Your task to perform on an android device: Go to Google Image 0: 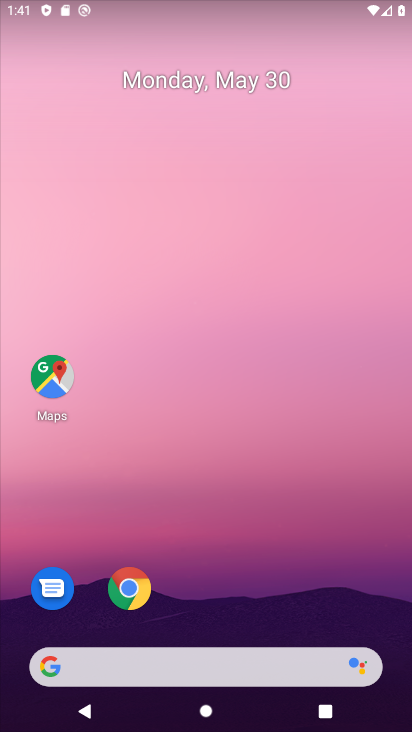
Step 0: click (56, 374)
Your task to perform on an android device: Go to Google Image 1: 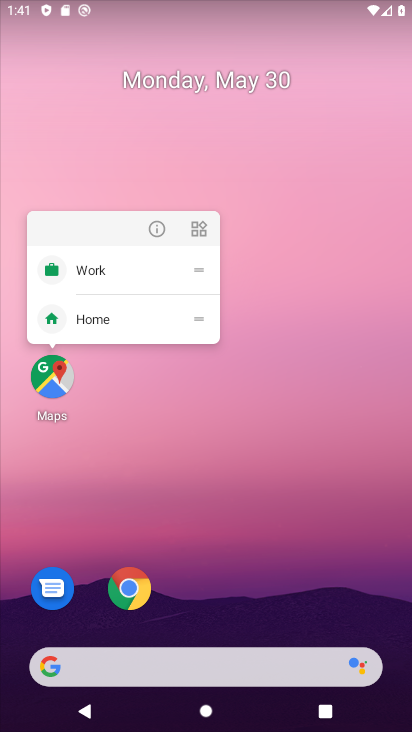
Step 1: press home button
Your task to perform on an android device: Go to Google Image 2: 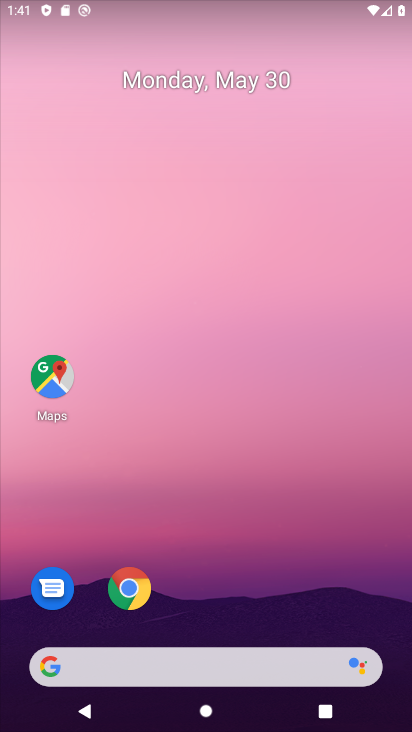
Step 2: drag from (310, 477) to (187, 27)
Your task to perform on an android device: Go to Google Image 3: 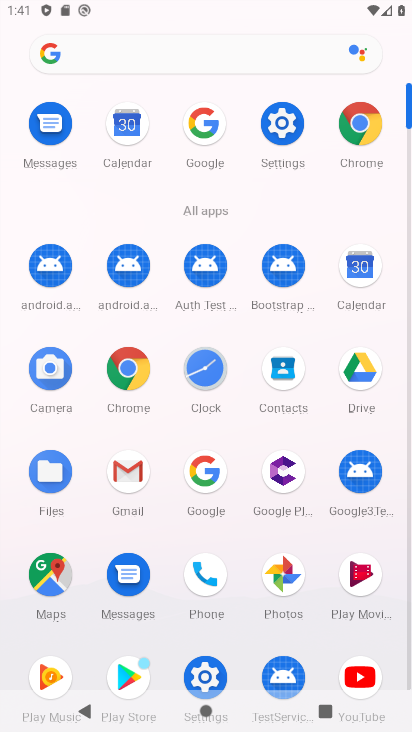
Step 3: click (201, 493)
Your task to perform on an android device: Go to Google Image 4: 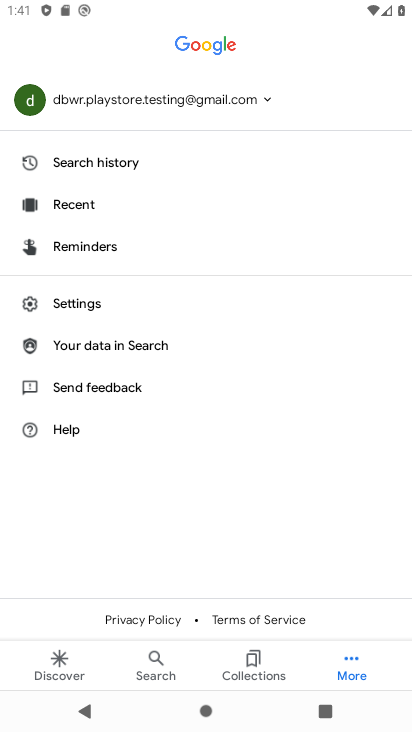
Step 4: click (71, 684)
Your task to perform on an android device: Go to Google Image 5: 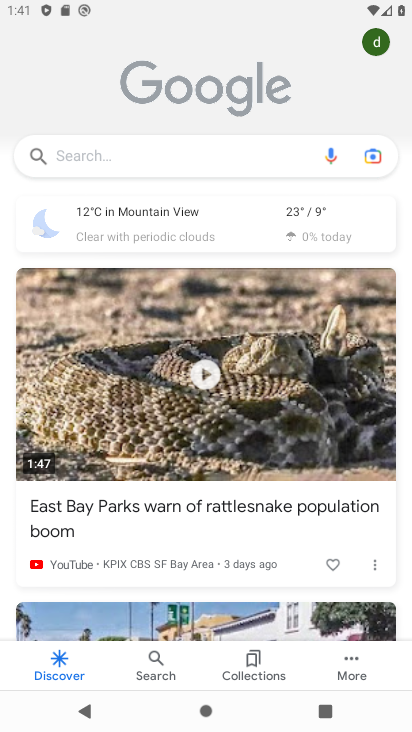
Step 5: task complete